Your task to perform on an android device: Clear the cart on bestbuy.com. Search for duracell triple a on bestbuy.com, select the first entry, and add it to the cart. Image 0: 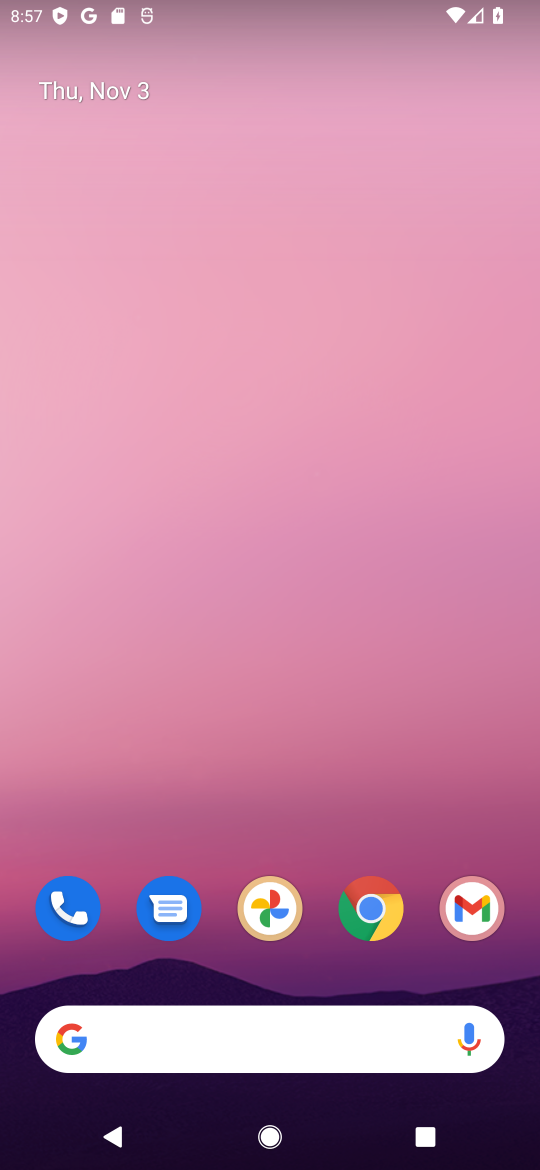
Step 0: click (377, 901)
Your task to perform on an android device: Clear the cart on bestbuy.com. Search for duracell triple a on bestbuy.com, select the first entry, and add it to the cart. Image 1: 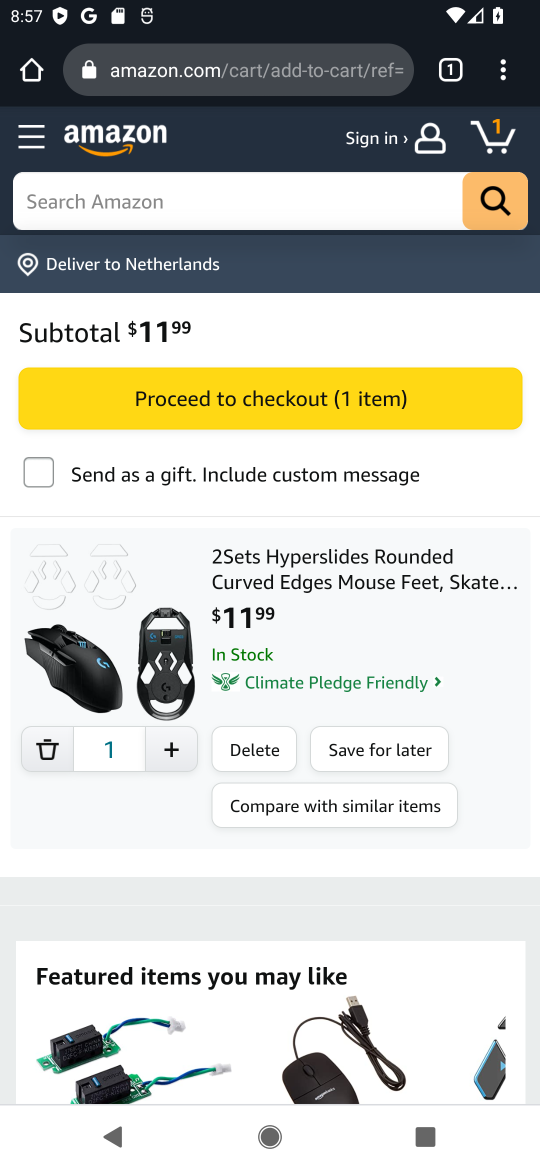
Step 1: click (22, 62)
Your task to perform on an android device: Clear the cart on bestbuy.com. Search for duracell triple a on bestbuy.com, select the first entry, and add it to the cart. Image 2: 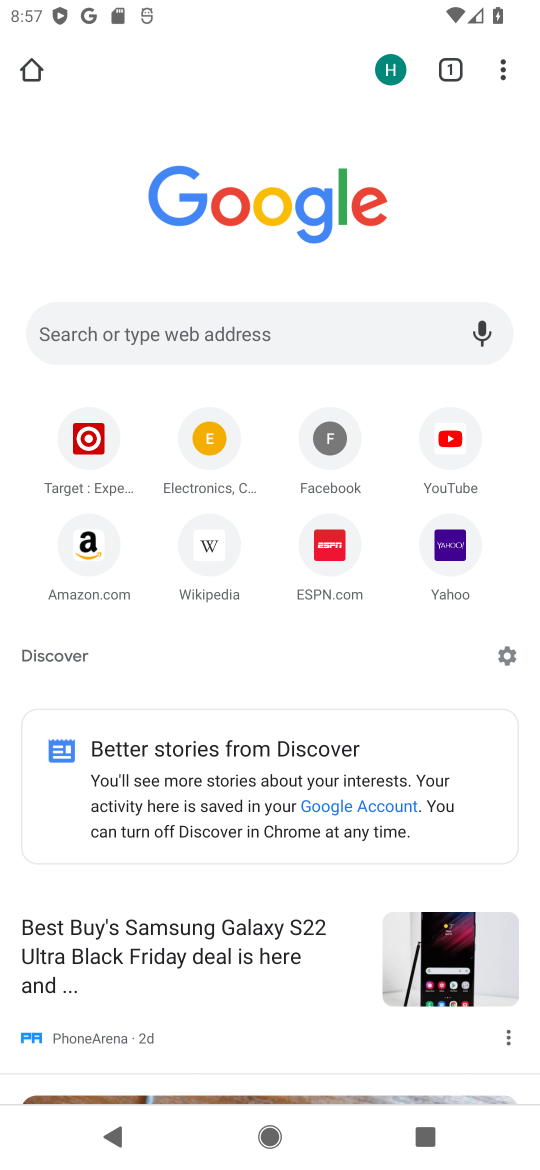
Step 2: click (280, 325)
Your task to perform on an android device: Clear the cart on bestbuy.com. Search for duracell triple a on bestbuy.com, select the first entry, and add it to the cart. Image 3: 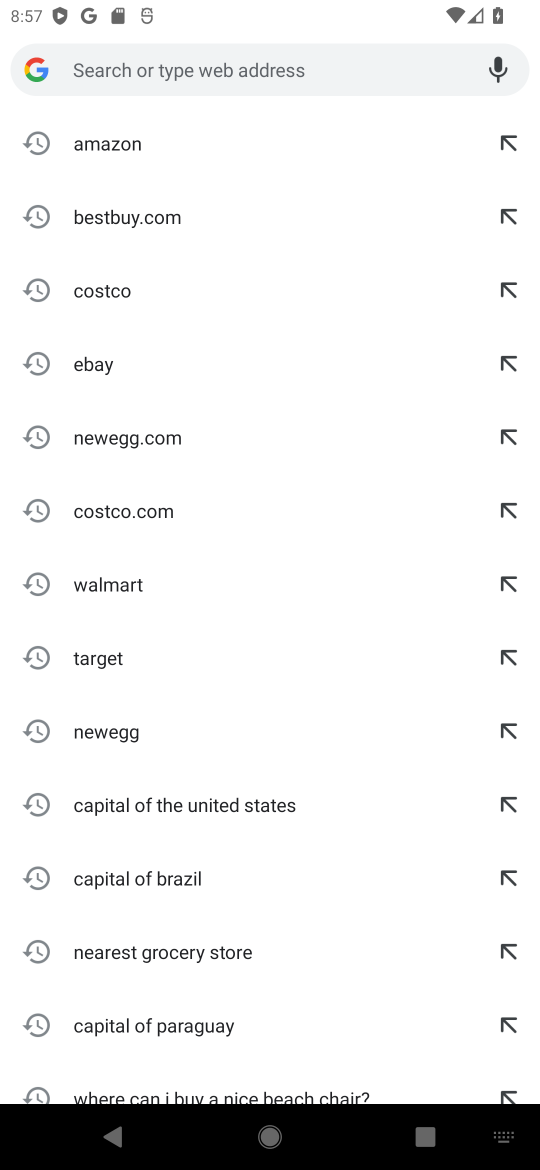
Step 3: click (128, 216)
Your task to perform on an android device: Clear the cart on bestbuy.com. Search for duracell triple a on bestbuy.com, select the first entry, and add it to the cart. Image 4: 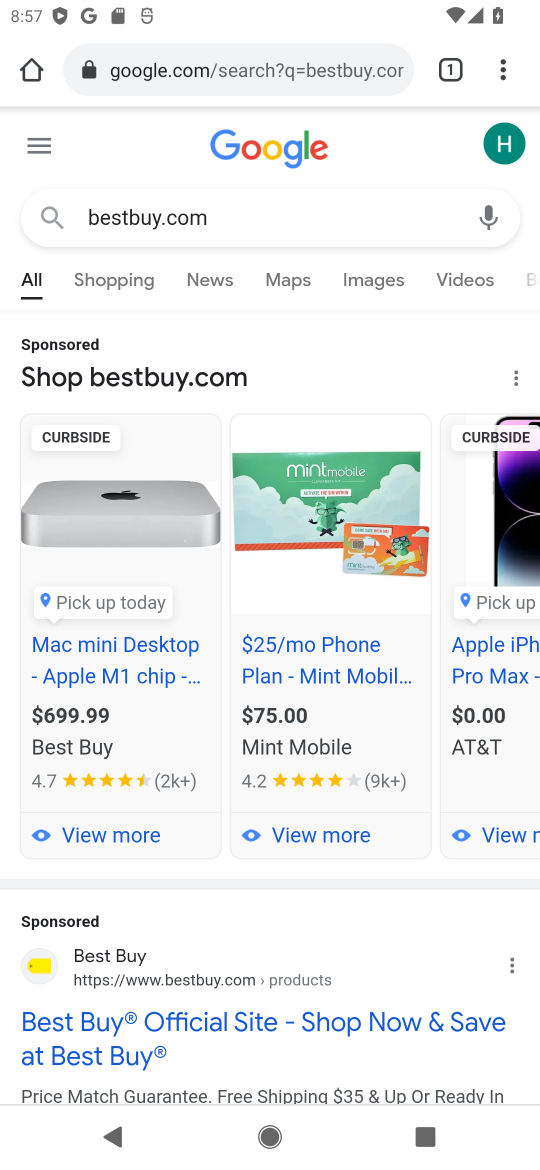
Step 4: click (212, 974)
Your task to perform on an android device: Clear the cart on bestbuy.com. Search for duracell triple a on bestbuy.com, select the first entry, and add it to the cart. Image 5: 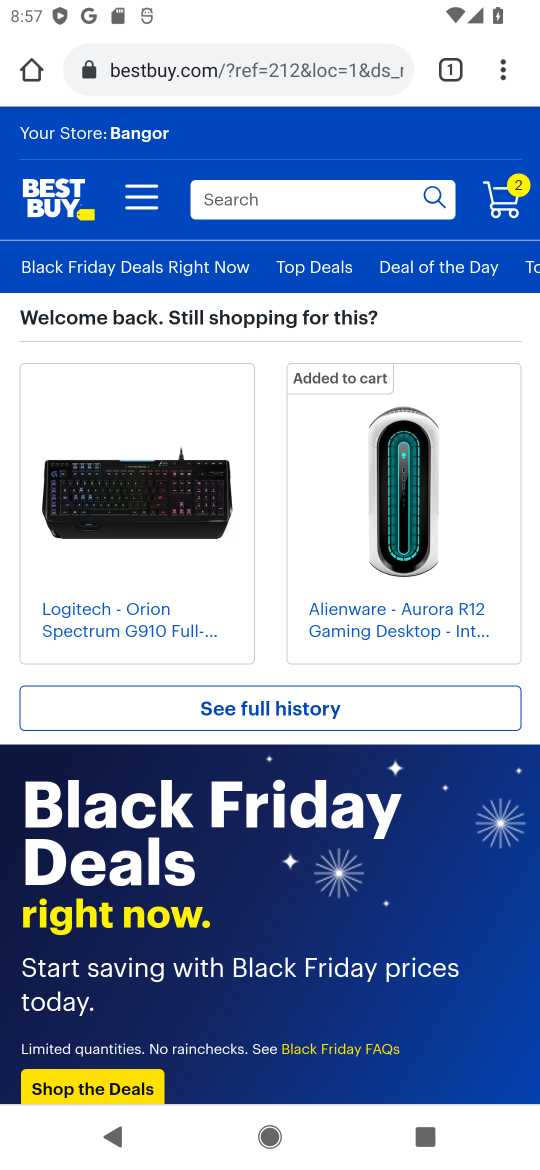
Step 5: click (506, 201)
Your task to perform on an android device: Clear the cart on bestbuy.com. Search for duracell triple a on bestbuy.com, select the first entry, and add it to the cart. Image 6: 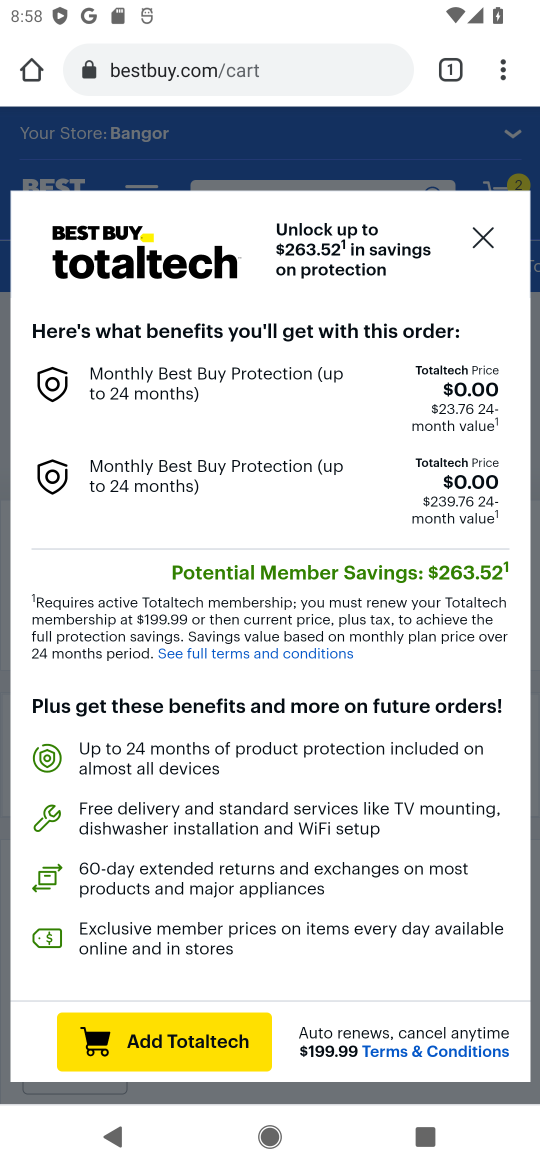
Step 6: click (477, 232)
Your task to perform on an android device: Clear the cart on bestbuy.com. Search for duracell triple a on bestbuy.com, select the first entry, and add it to the cart. Image 7: 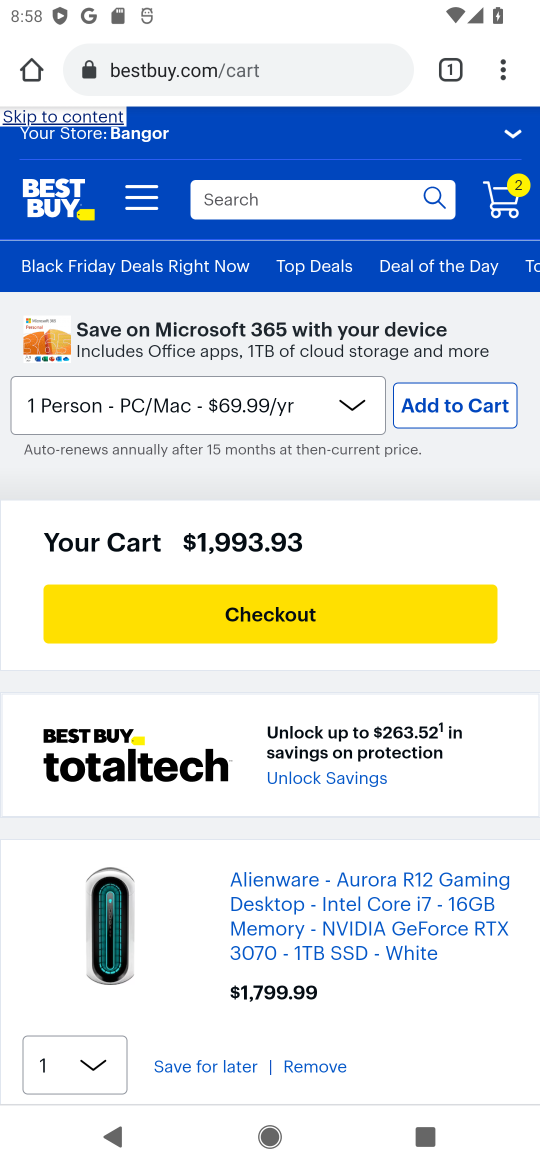
Step 7: drag from (405, 873) to (376, 467)
Your task to perform on an android device: Clear the cart on bestbuy.com. Search for duracell triple a on bestbuy.com, select the first entry, and add it to the cart. Image 8: 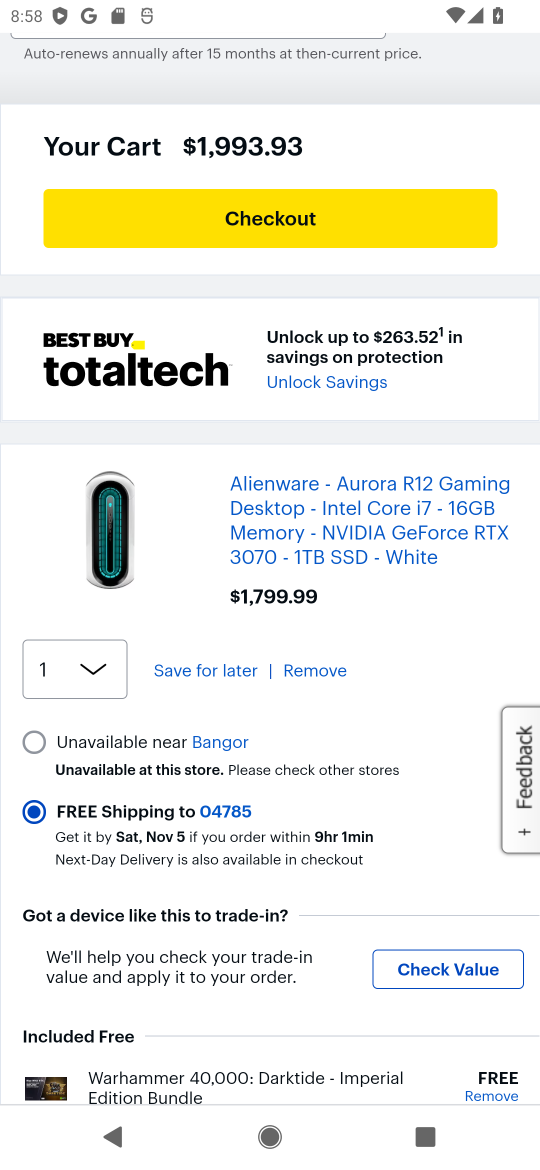
Step 8: click (320, 665)
Your task to perform on an android device: Clear the cart on bestbuy.com. Search for duracell triple a on bestbuy.com, select the first entry, and add it to the cart. Image 9: 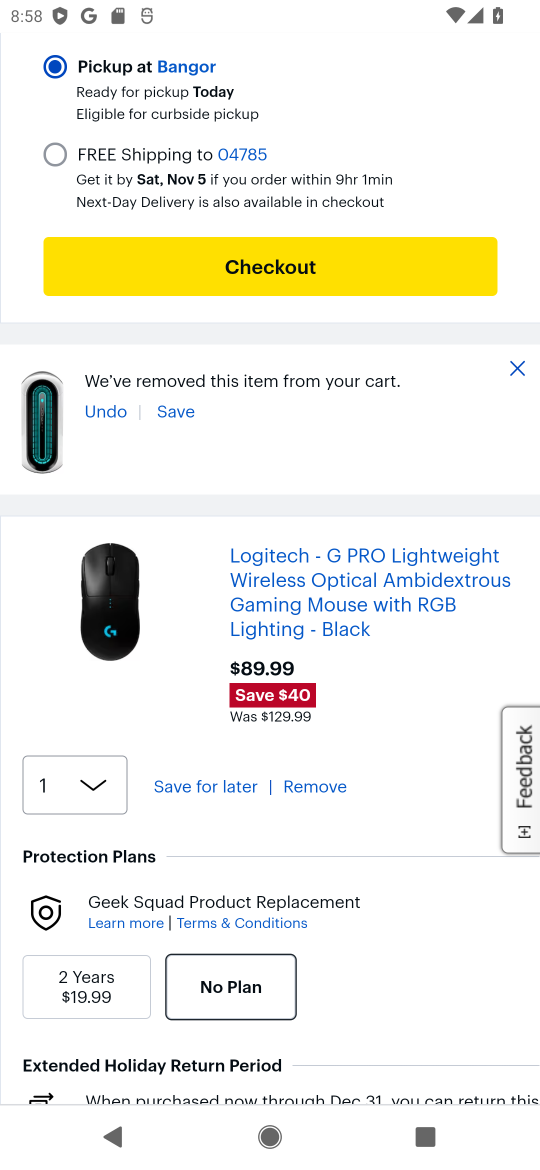
Step 9: click (333, 784)
Your task to perform on an android device: Clear the cart on bestbuy.com. Search for duracell triple a on bestbuy.com, select the first entry, and add it to the cart. Image 10: 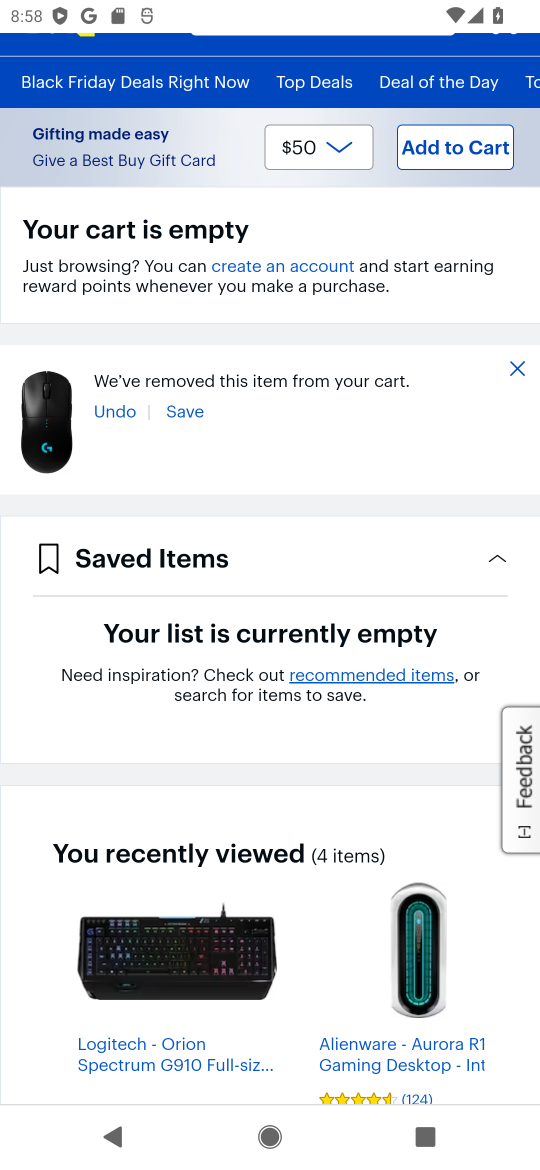
Step 10: drag from (441, 325) to (475, 908)
Your task to perform on an android device: Clear the cart on bestbuy.com. Search for duracell triple a on bestbuy.com, select the first entry, and add it to the cart. Image 11: 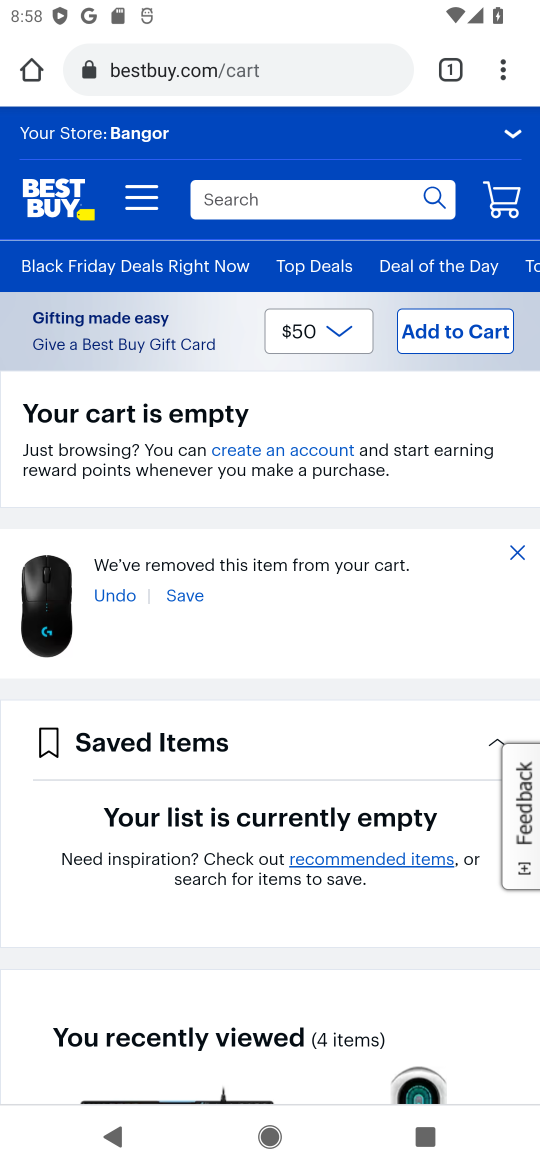
Step 11: click (342, 202)
Your task to perform on an android device: Clear the cart on bestbuy.com. Search for duracell triple a on bestbuy.com, select the first entry, and add it to the cart. Image 12: 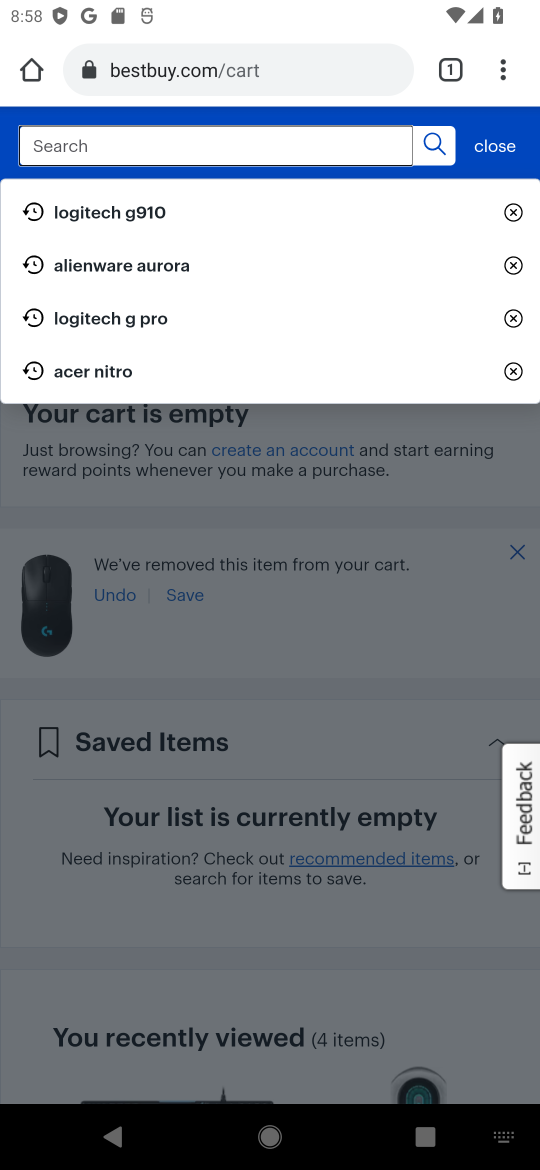
Step 12: type "duracell triple a"
Your task to perform on an android device: Clear the cart on bestbuy.com. Search for duracell triple a on bestbuy.com, select the first entry, and add it to the cart. Image 13: 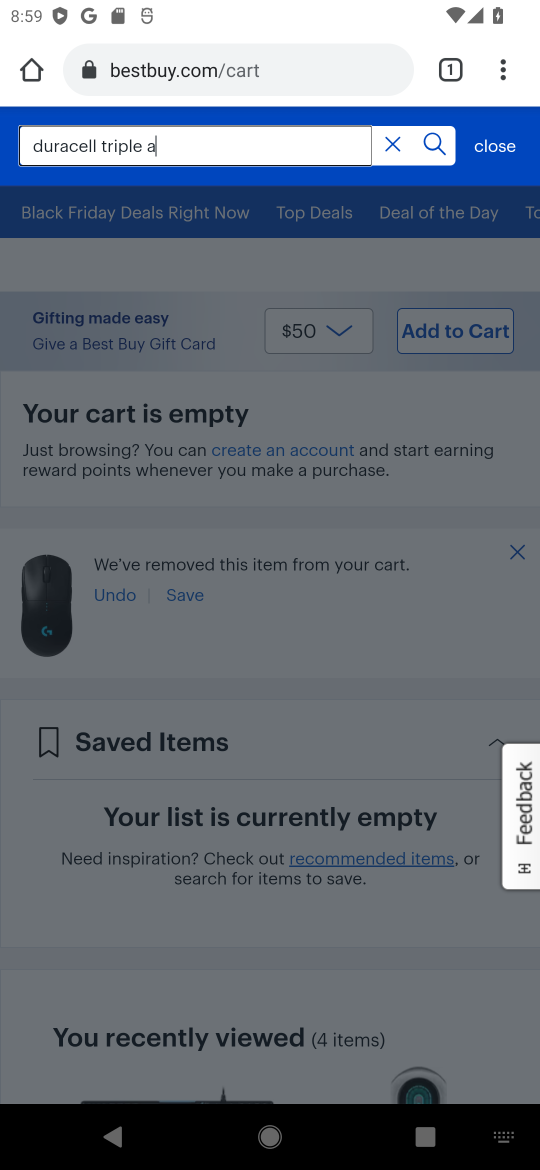
Step 13: click (463, 450)
Your task to perform on an android device: Clear the cart on bestbuy.com. Search for duracell triple a on bestbuy.com, select the first entry, and add it to the cart. Image 14: 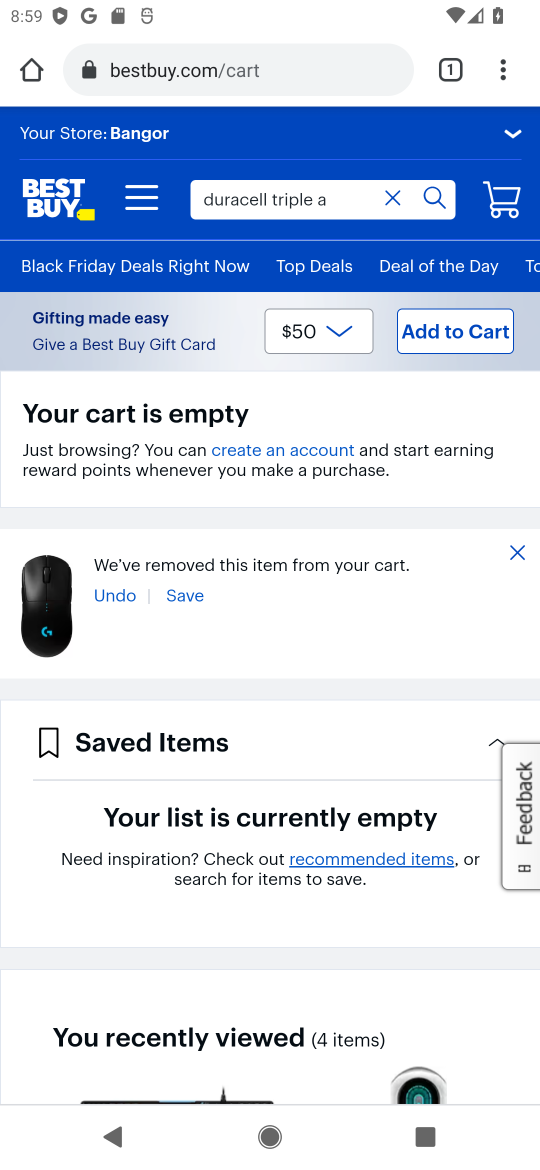
Step 14: click (515, 549)
Your task to perform on an android device: Clear the cart on bestbuy.com. Search for duracell triple a on bestbuy.com, select the first entry, and add it to the cart. Image 15: 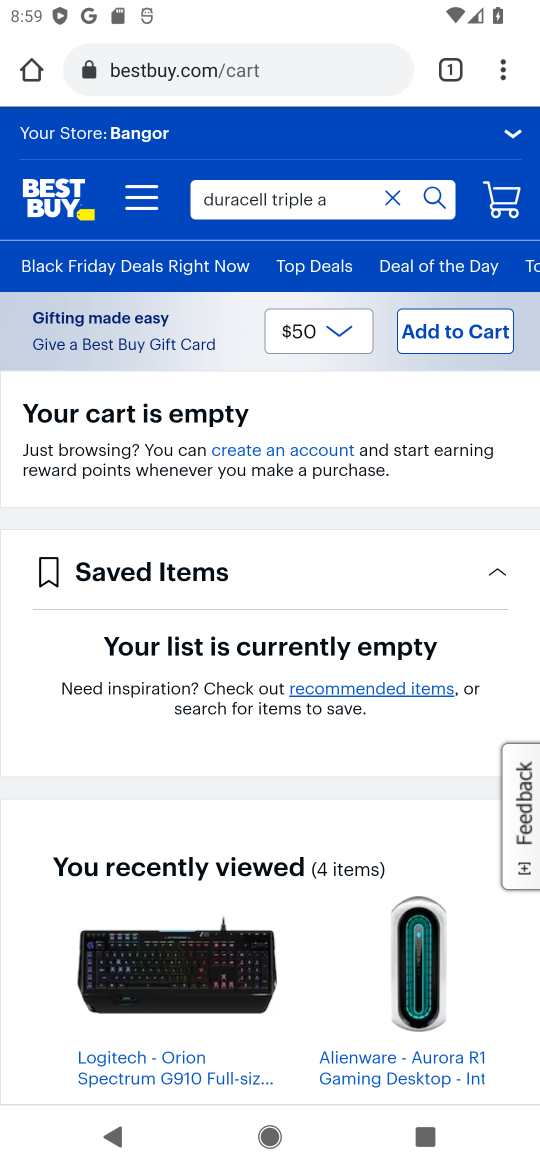
Step 15: click (398, 196)
Your task to perform on an android device: Clear the cart on bestbuy.com. Search for duracell triple a on bestbuy.com, select the first entry, and add it to the cart. Image 16: 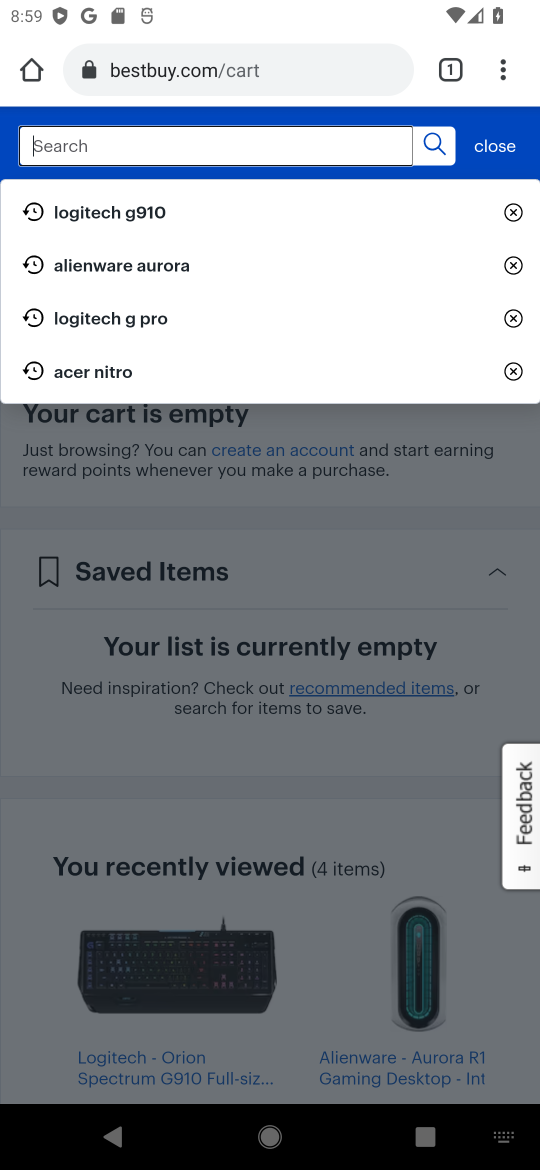
Step 16: type "duracell triple a"
Your task to perform on an android device: Clear the cart on bestbuy.com. Search for duracell triple a on bestbuy.com, select the first entry, and add it to the cart. Image 17: 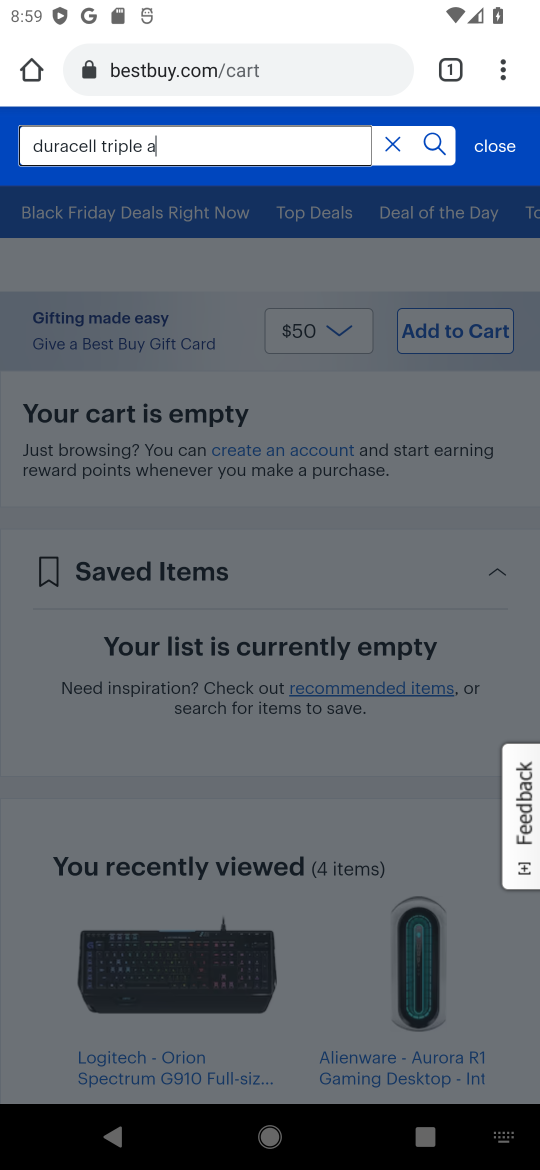
Step 17: click (524, 524)
Your task to perform on an android device: Clear the cart on bestbuy.com. Search for duracell triple a on bestbuy.com, select the first entry, and add it to the cart. Image 18: 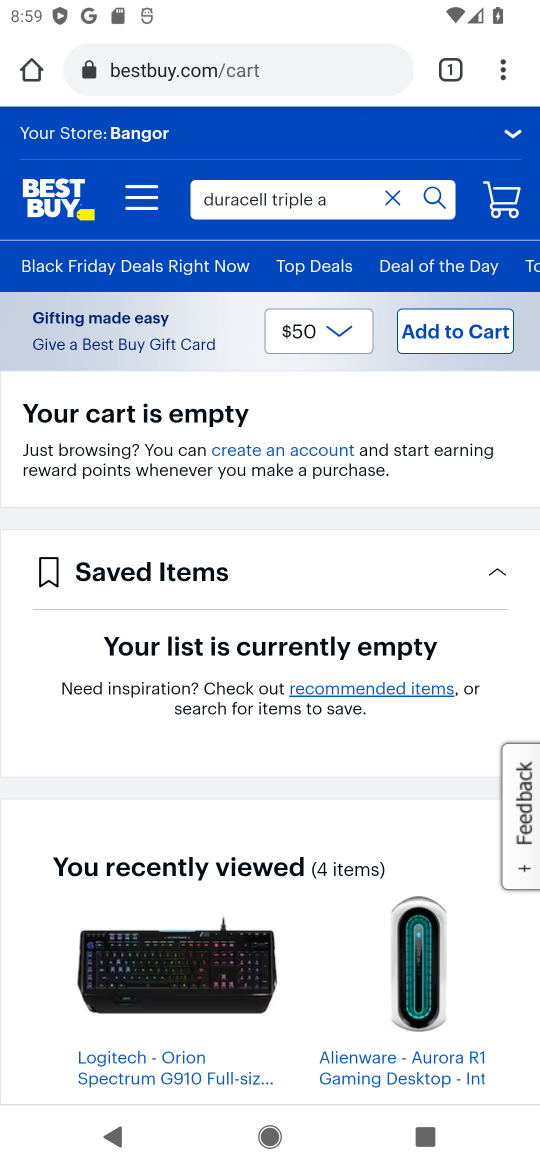
Step 18: task complete